Your task to perform on an android device: turn off airplane mode Image 0: 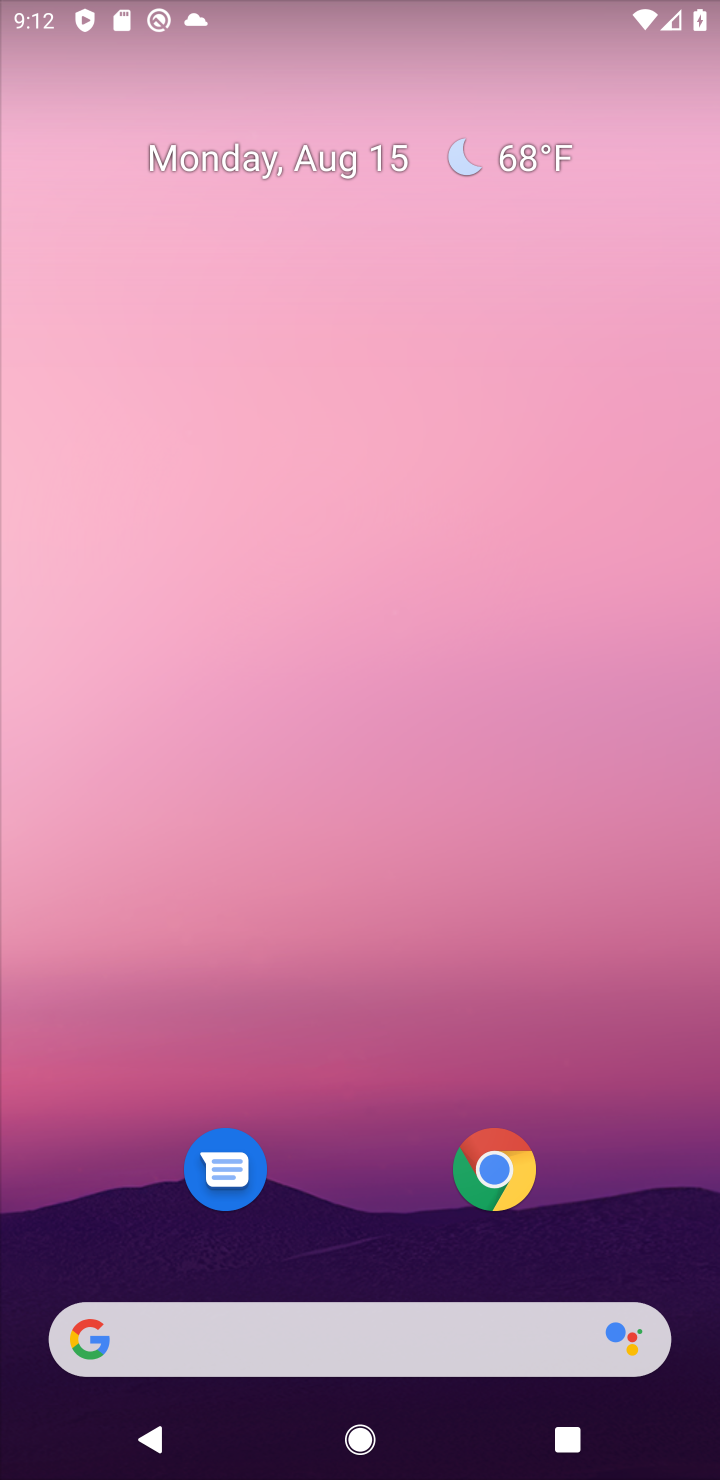
Step 0: drag from (339, 1364) to (634, 0)
Your task to perform on an android device: turn off airplane mode Image 1: 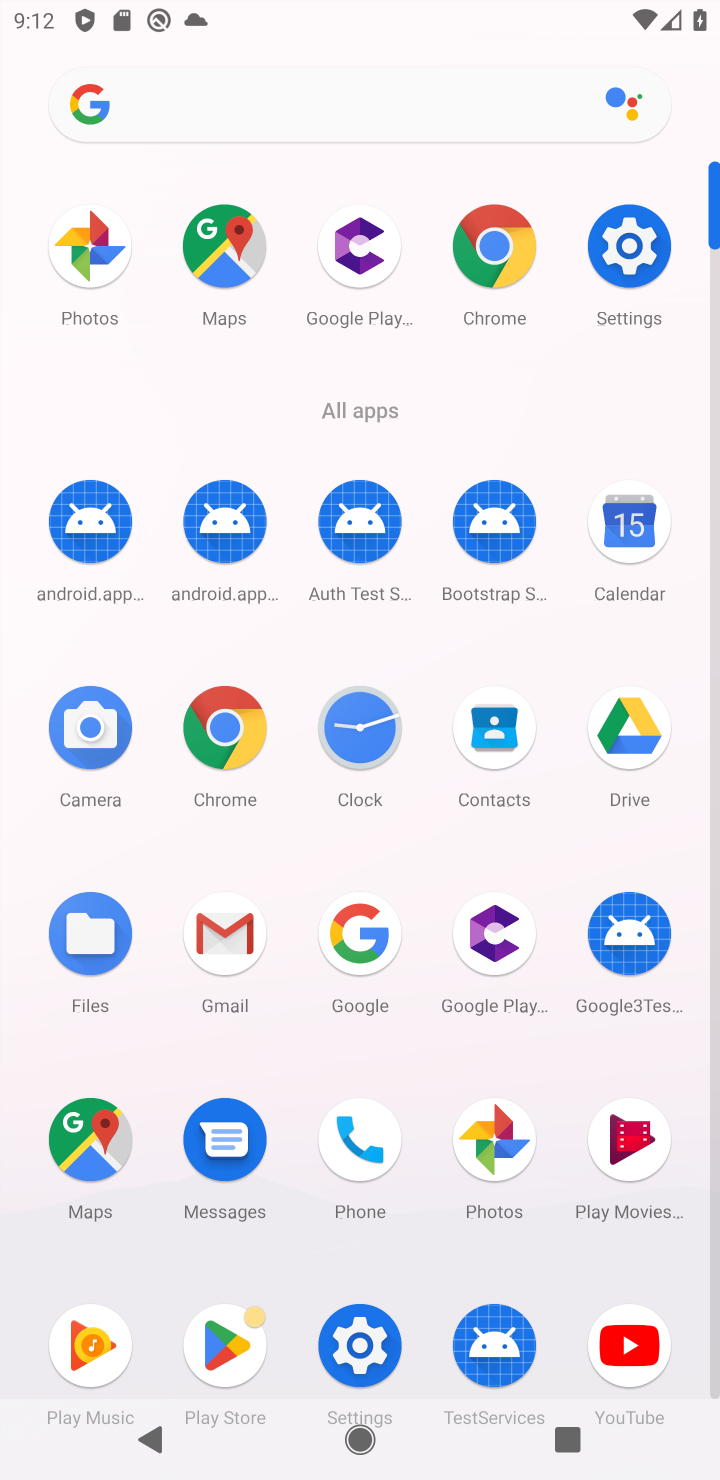
Step 1: click (615, 242)
Your task to perform on an android device: turn off airplane mode Image 2: 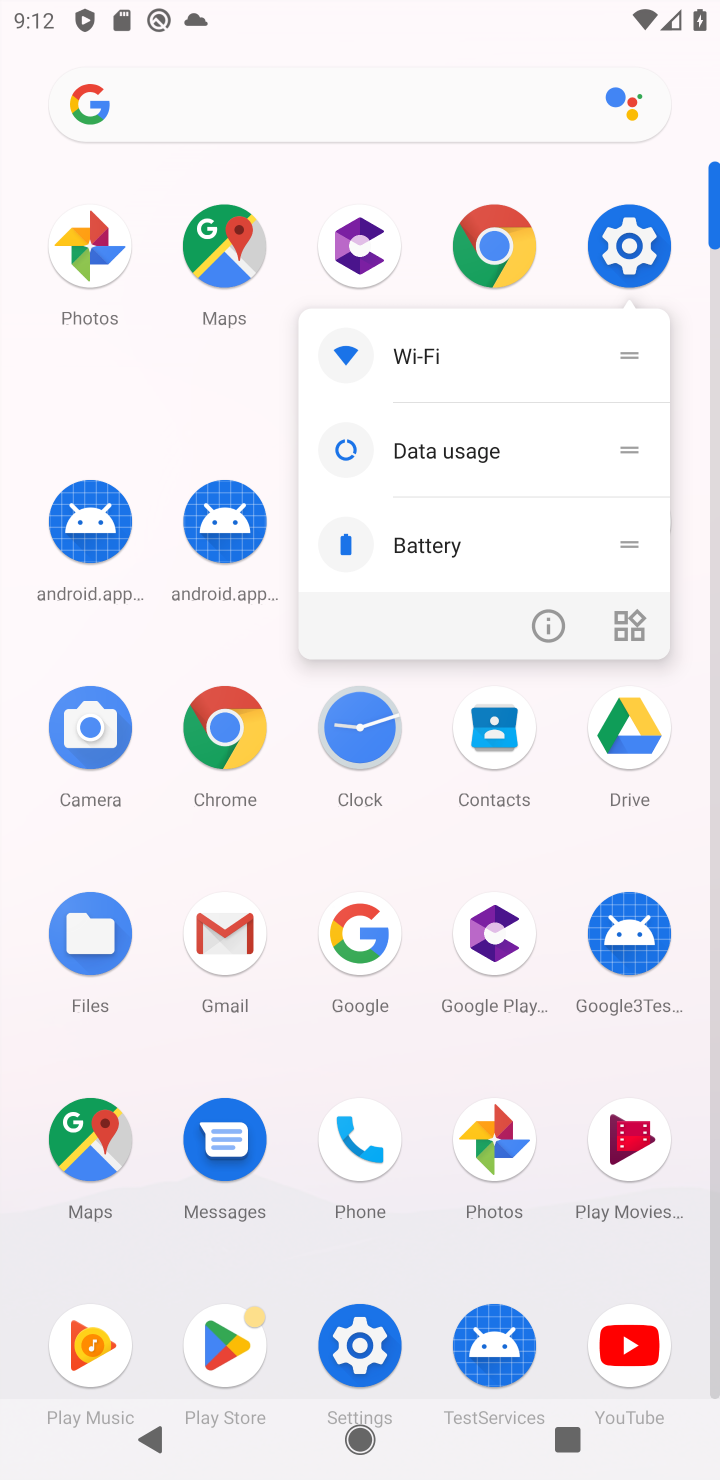
Step 2: click (615, 242)
Your task to perform on an android device: turn off airplane mode Image 3: 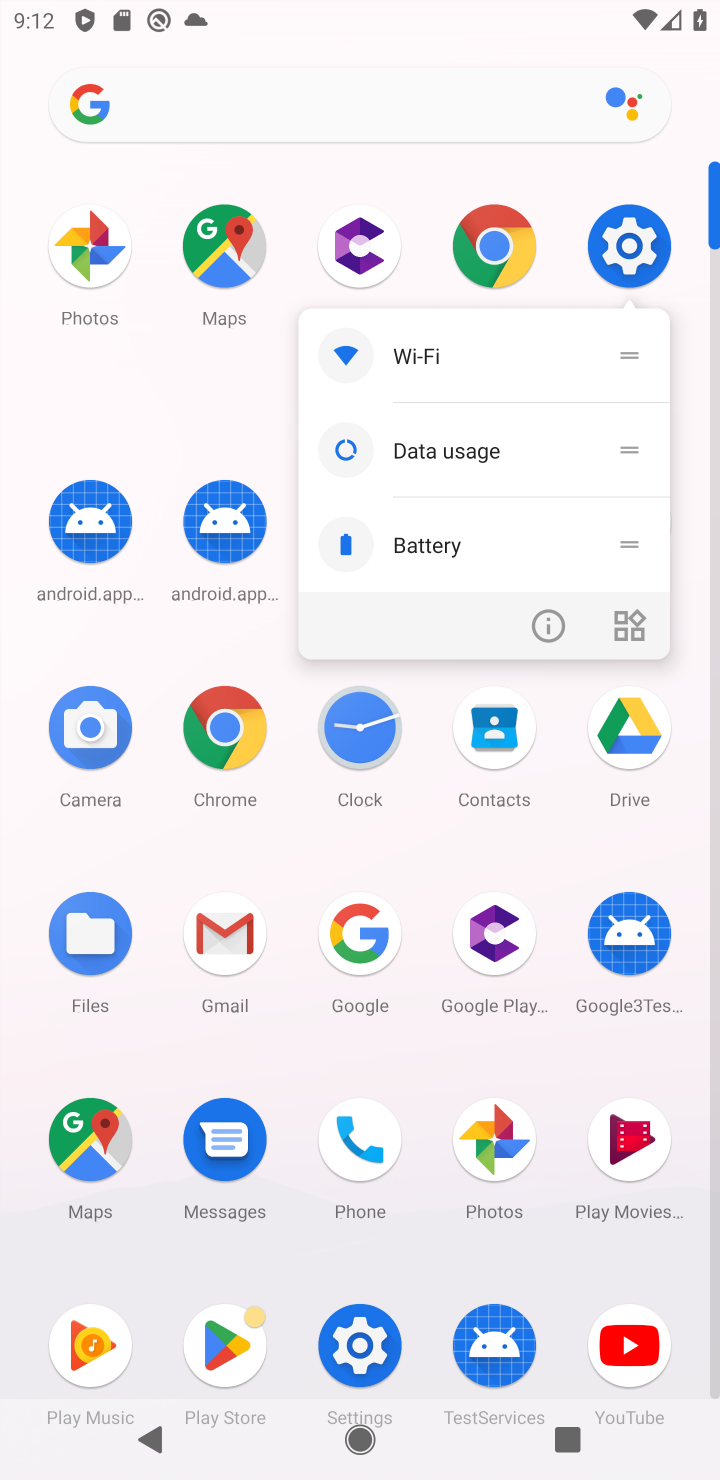
Step 3: click (622, 244)
Your task to perform on an android device: turn off airplane mode Image 4: 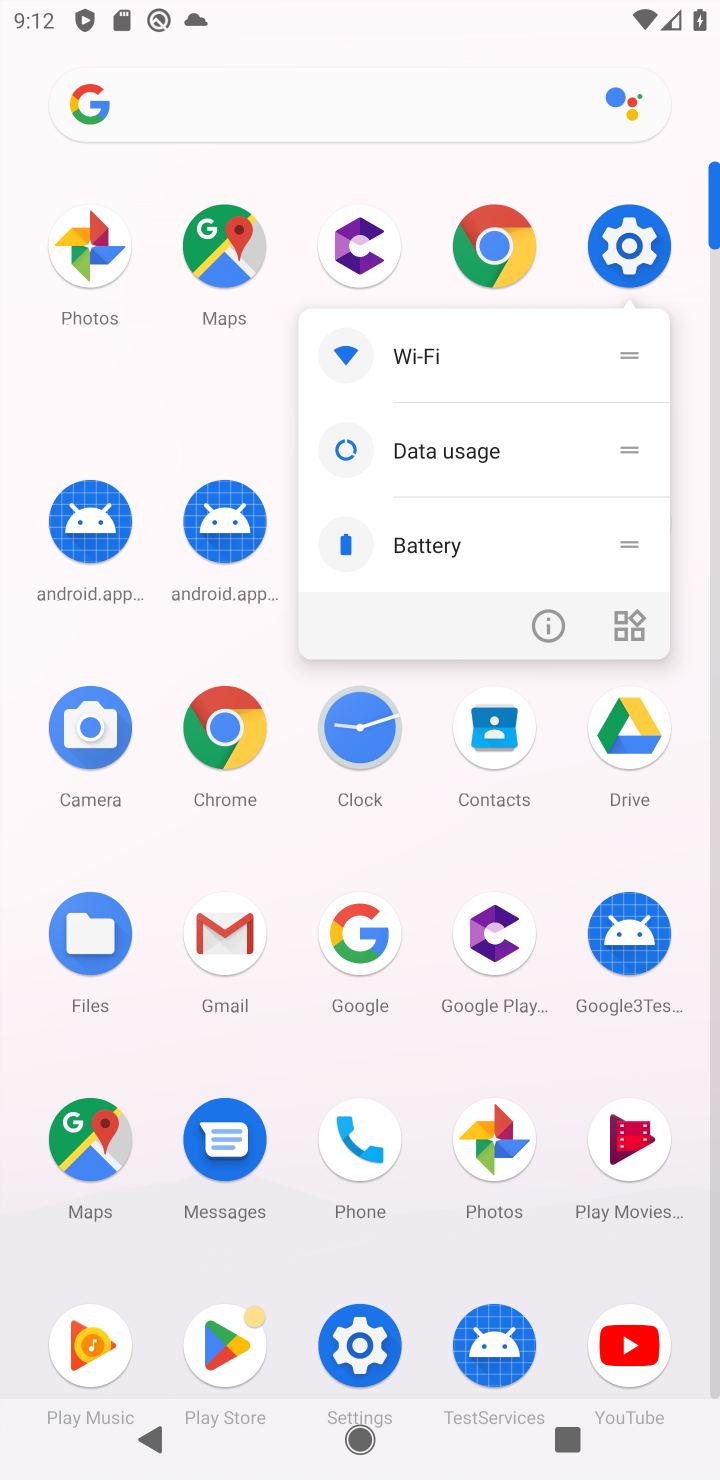
Step 4: click (622, 244)
Your task to perform on an android device: turn off airplane mode Image 5: 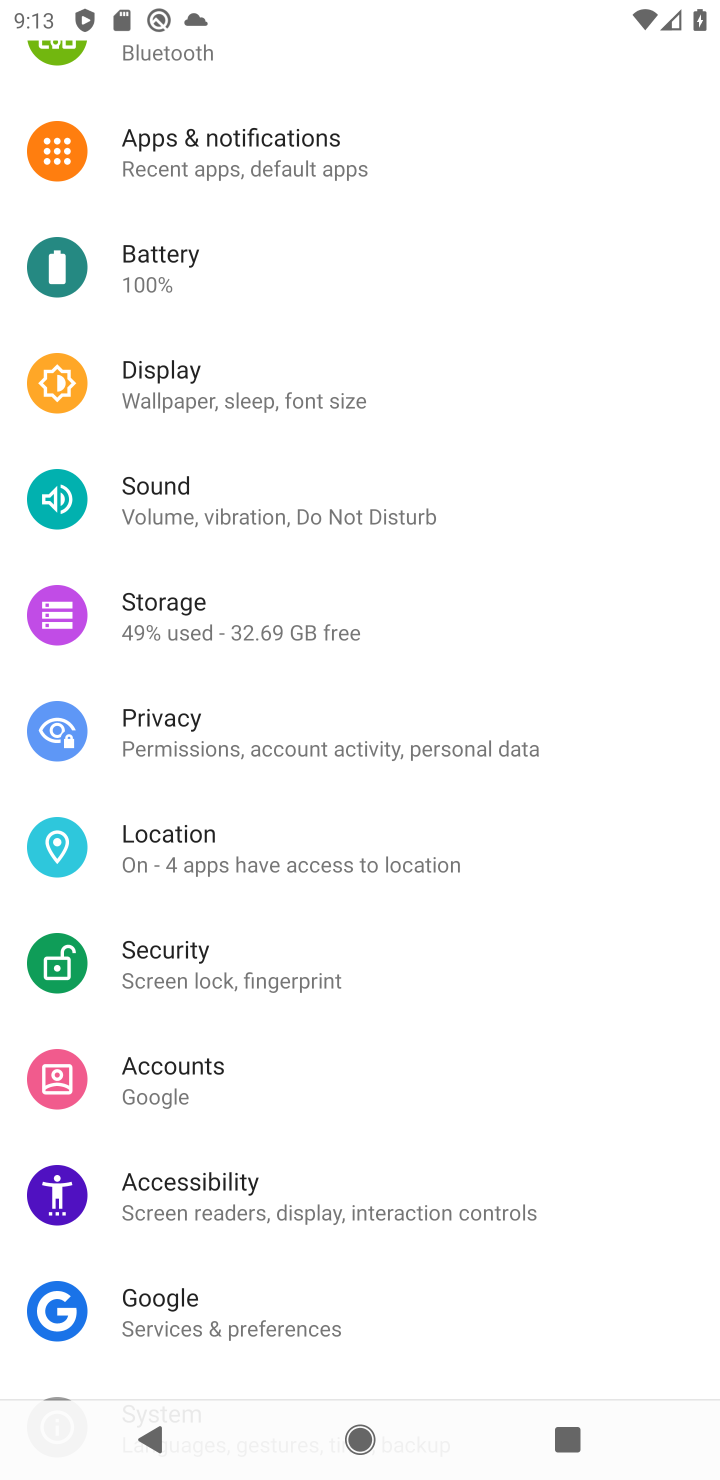
Step 5: drag from (423, 239) to (437, 1050)
Your task to perform on an android device: turn off airplane mode Image 6: 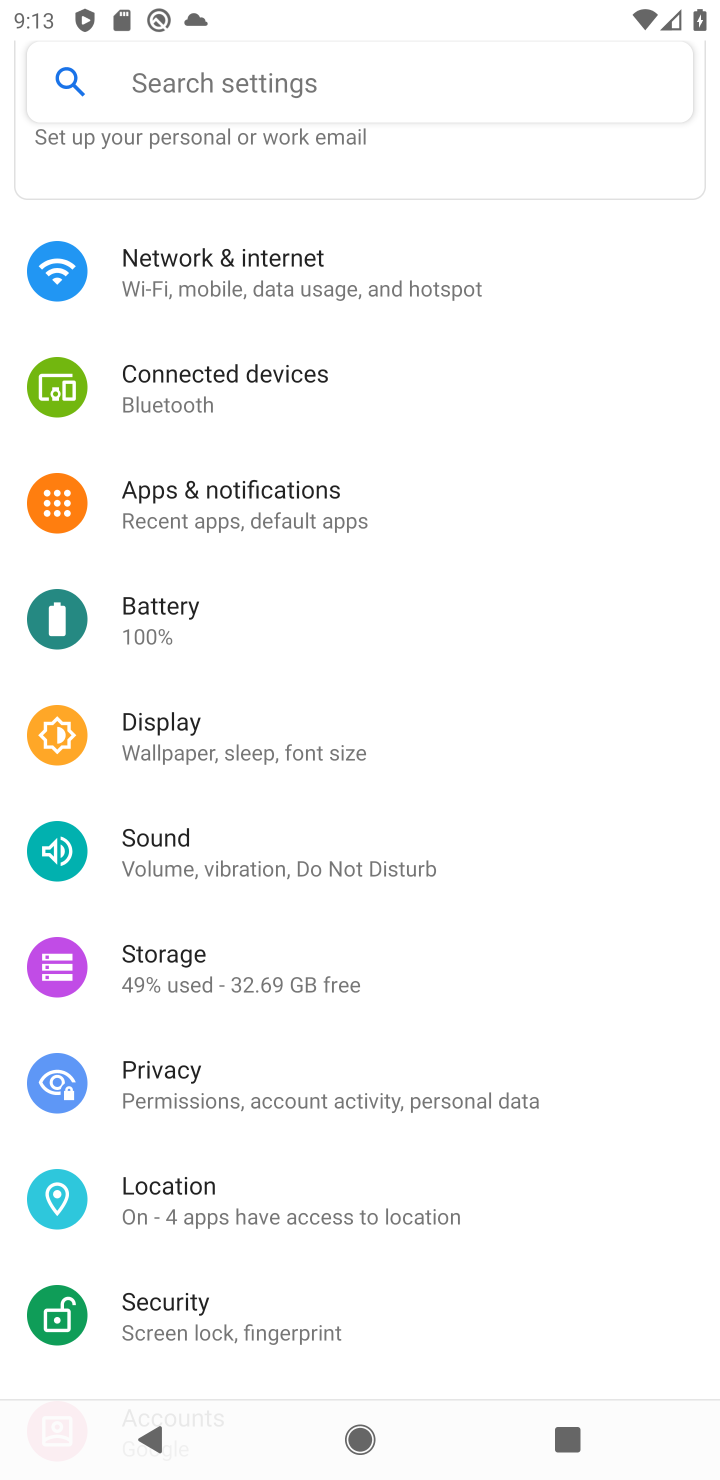
Step 6: click (256, 265)
Your task to perform on an android device: turn off airplane mode Image 7: 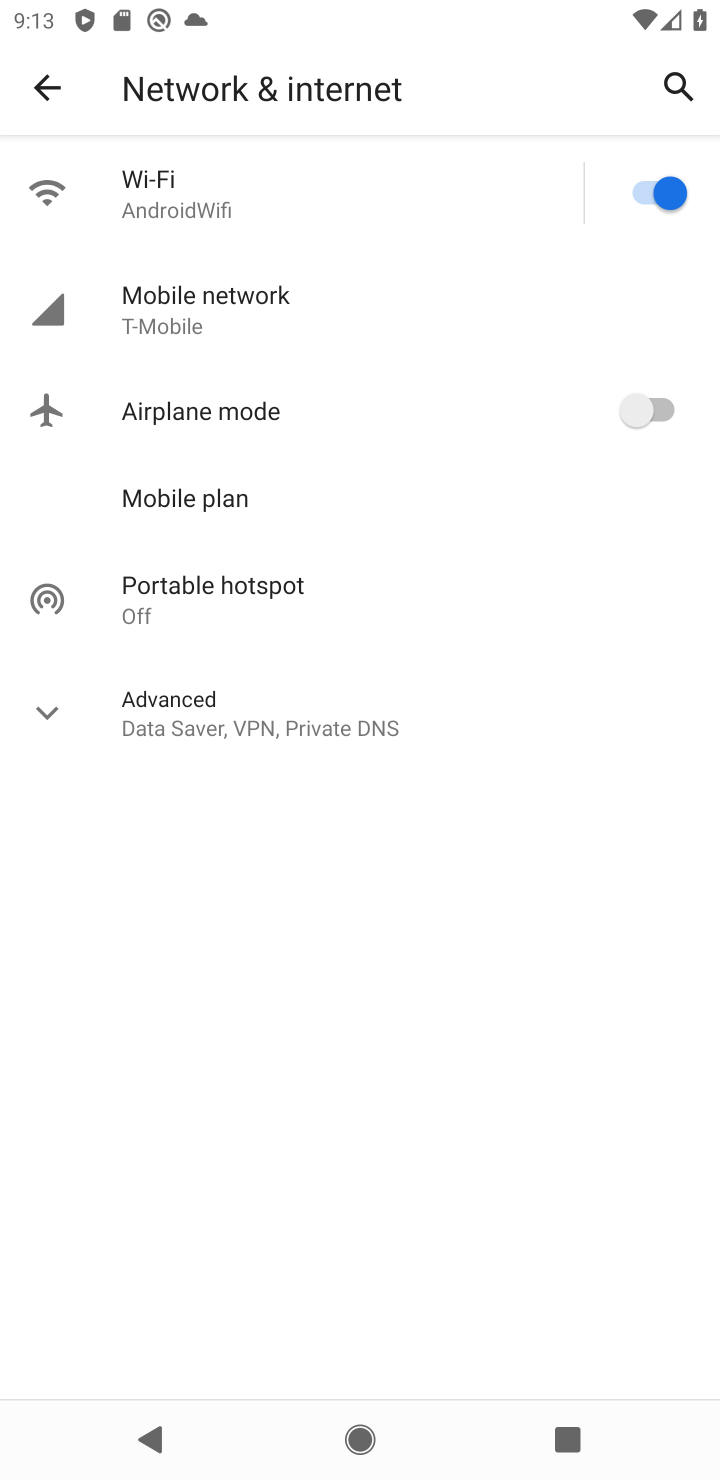
Step 7: task complete